Your task to perform on an android device: turn off sleep mode Image 0: 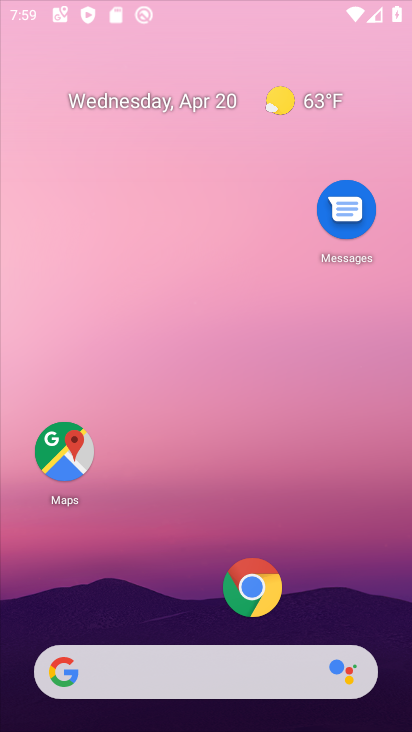
Step 0: drag from (95, 678) to (262, 112)
Your task to perform on an android device: turn off sleep mode Image 1: 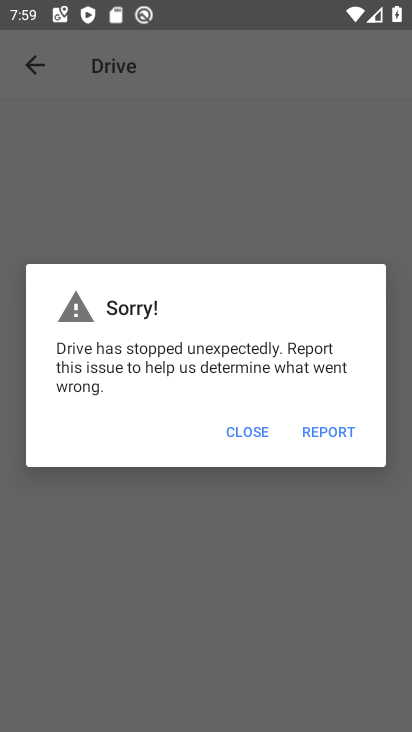
Step 1: press home button
Your task to perform on an android device: turn off sleep mode Image 2: 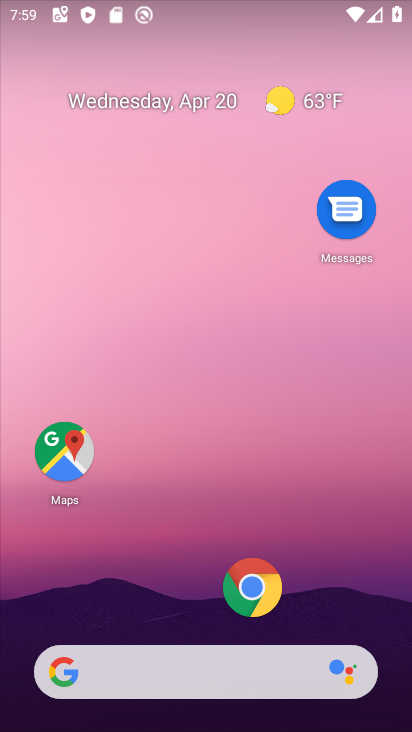
Step 2: drag from (153, 652) to (271, 143)
Your task to perform on an android device: turn off sleep mode Image 3: 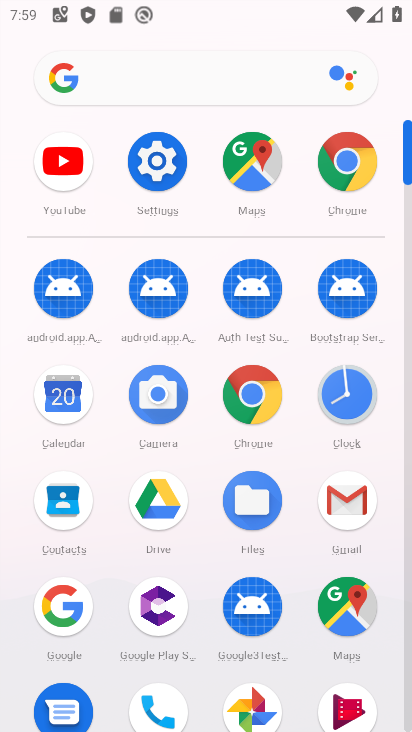
Step 3: click (151, 179)
Your task to perform on an android device: turn off sleep mode Image 4: 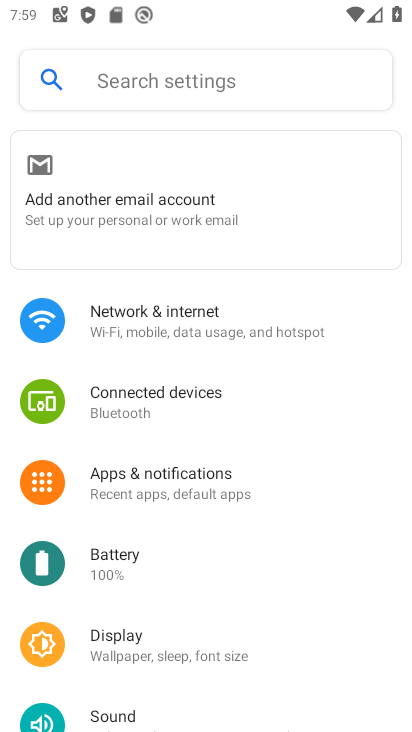
Step 4: click (138, 649)
Your task to perform on an android device: turn off sleep mode Image 5: 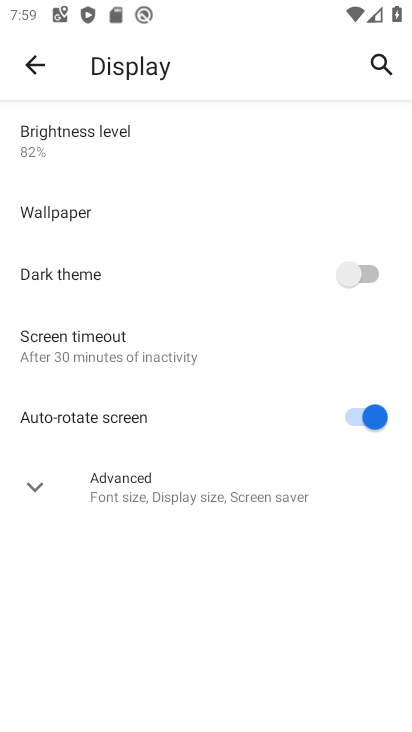
Step 5: click (32, 483)
Your task to perform on an android device: turn off sleep mode Image 6: 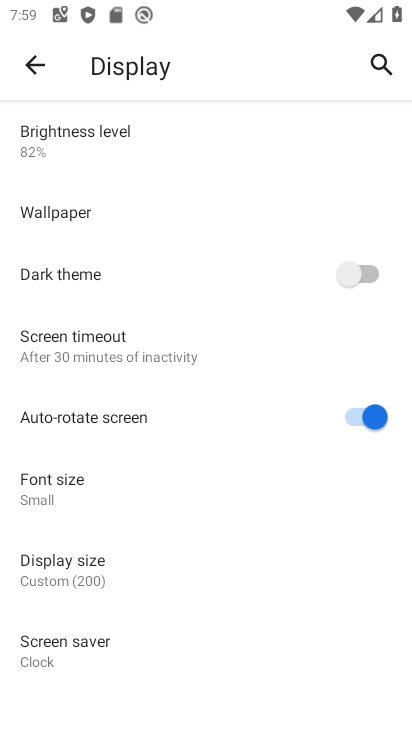
Step 6: task complete